Your task to perform on an android device: add a contact Image 0: 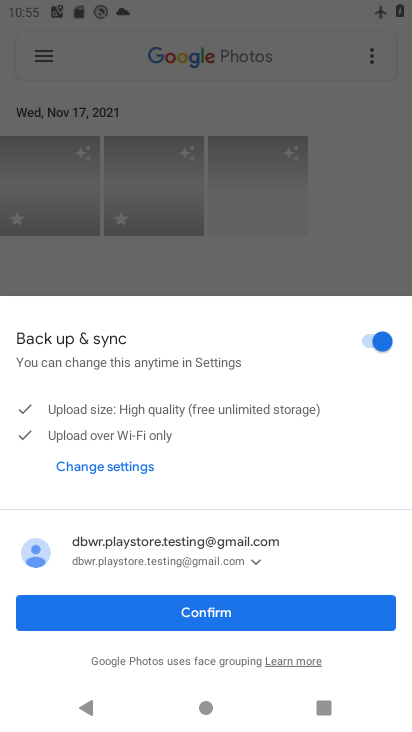
Step 0: press home button
Your task to perform on an android device: add a contact Image 1: 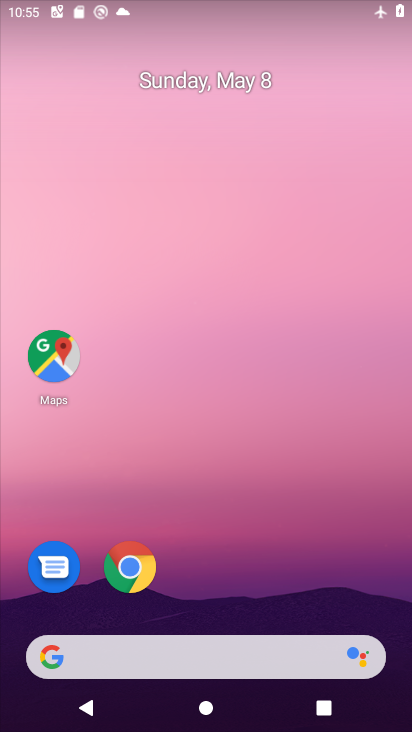
Step 1: drag from (244, 577) to (266, 226)
Your task to perform on an android device: add a contact Image 2: 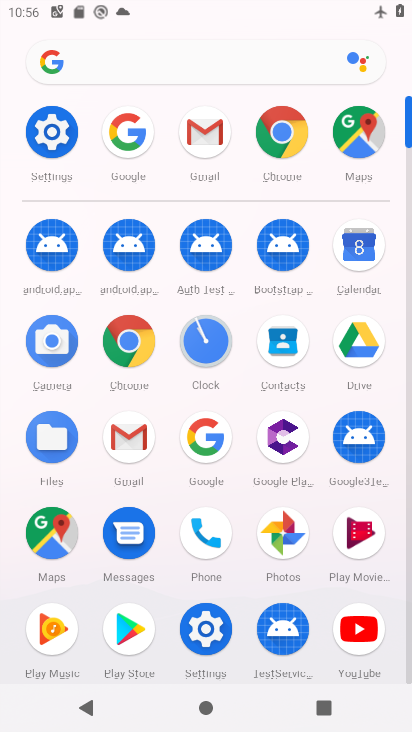
Step 2: click (291, 384)
Your task to perform on an android device: add a contact Image 3: 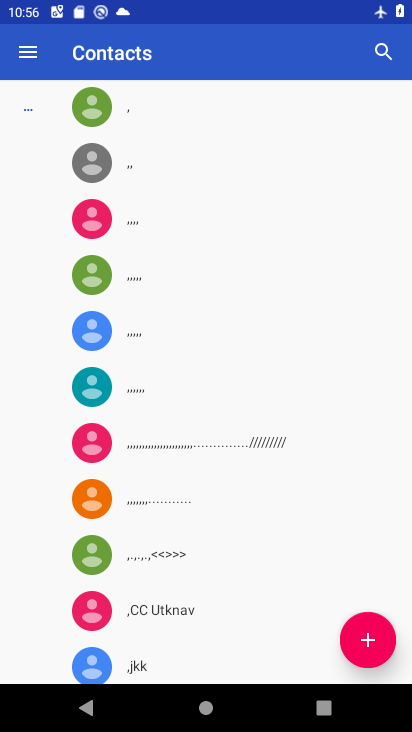
Step 3: click (352, 648)
Your task to perform on an android device: add a contact Image 4: 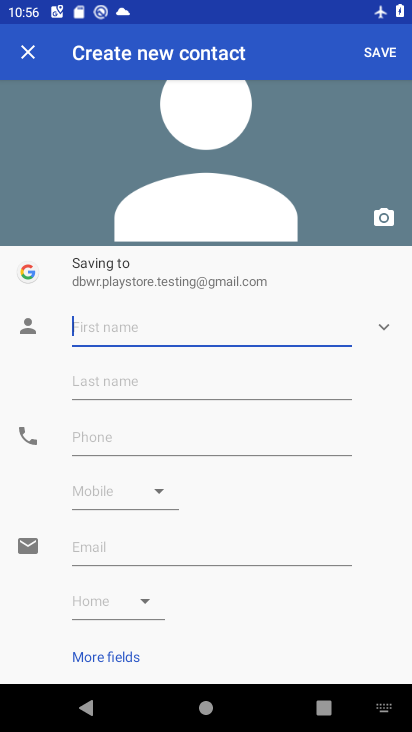
Step 4: click (152, 332)
Your task to perform on an android device: add a contact Image 5: 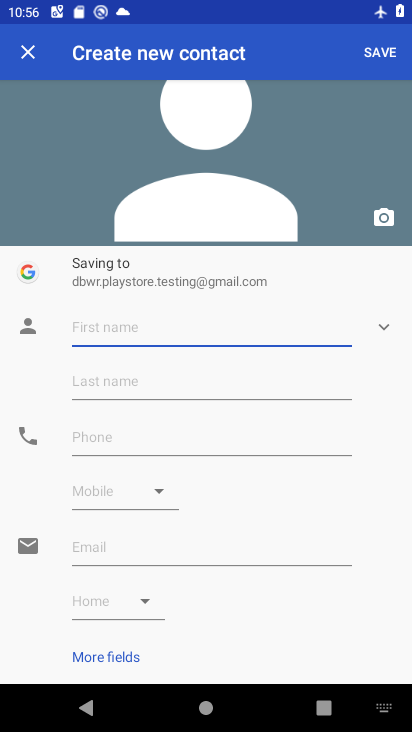
Step 5: type "vasu"
Your task to perform on an android device: add a contact Image 6: 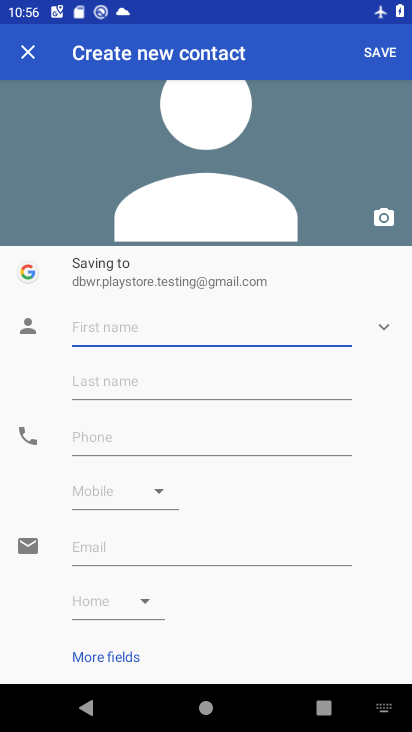
Step 6: click (170, 374)
Your task to perform on an android device: add a contact Image 7: 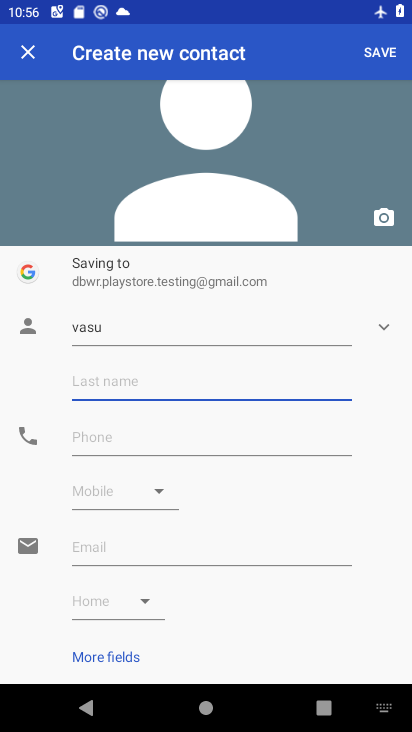
Step 7: type "bhagnnani"
Your task to perform on an android device: add a contact Image 8: 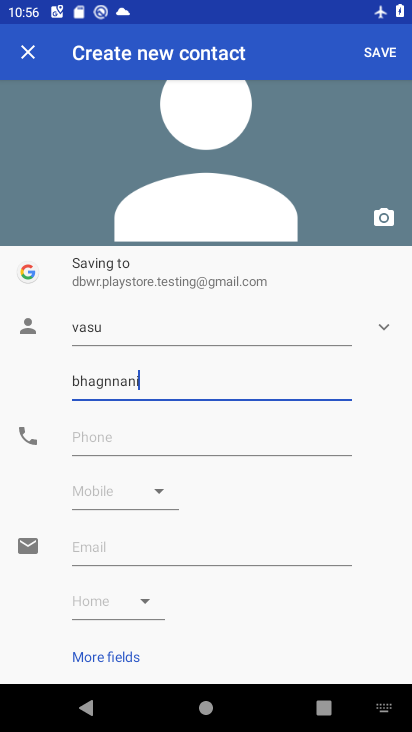
Step 8: click (154, 440)
Your task to perform on an android device: add a contact Image 9: 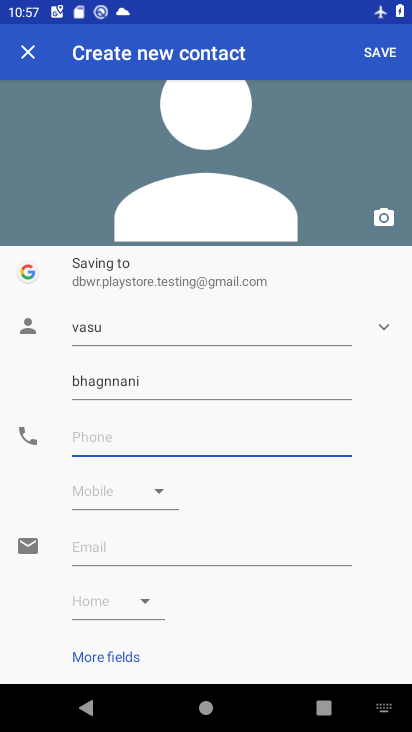
Step 9: type "8686686890"
Your task to perform on an android device: add a contact Image 10: 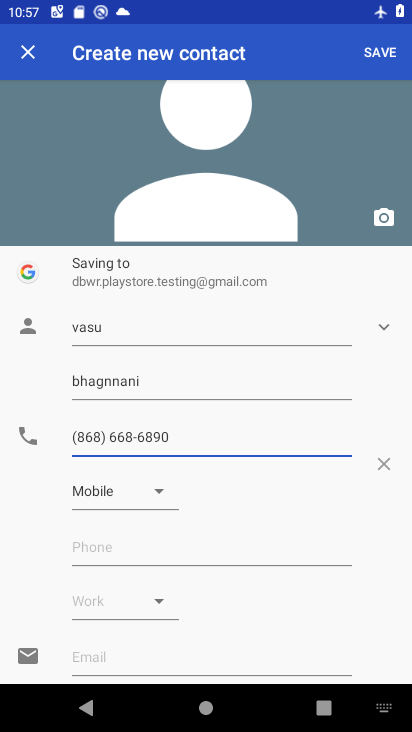
Step 10: click (384, 48)
Your task to perform on an android device: add a contact Image 11: 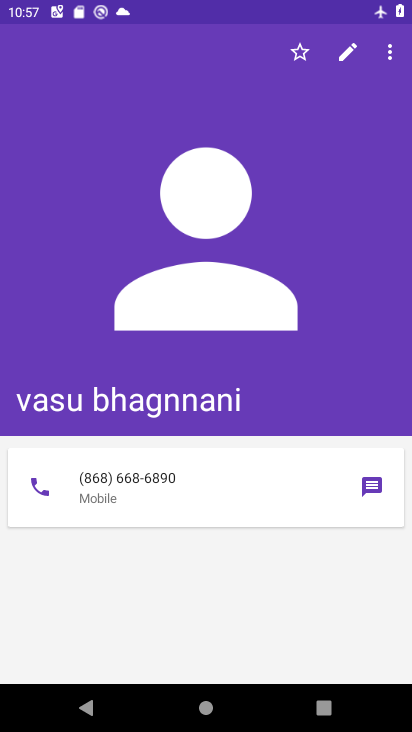
Step 11: task complete